Your task to perform on an android device: turn off smart reply in the gmail app Image 0: 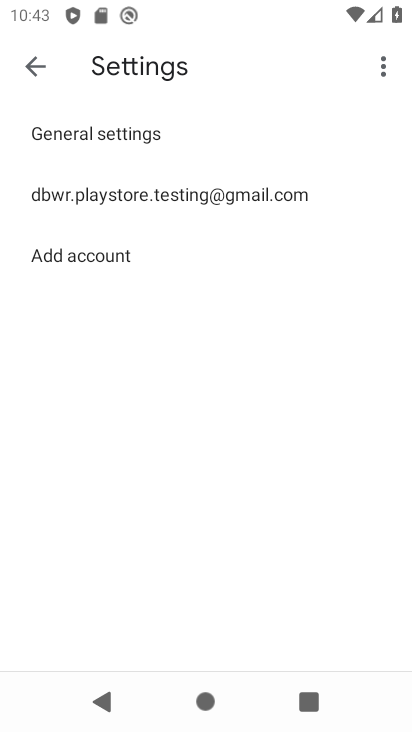
Step 0: press home button
Your task to perform on an android device: turn off smart reply in the gmail app Image 1: 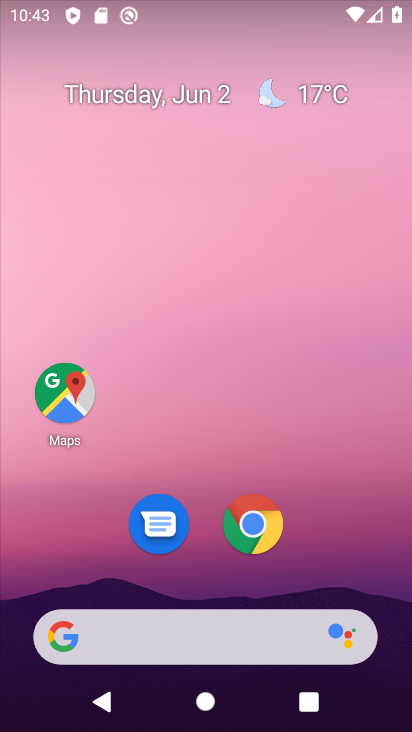
Step 1: drag from (314, 552) to (314, 39)
Your task to perform on an android device: turn off smart reply in the gmail app Image 2: 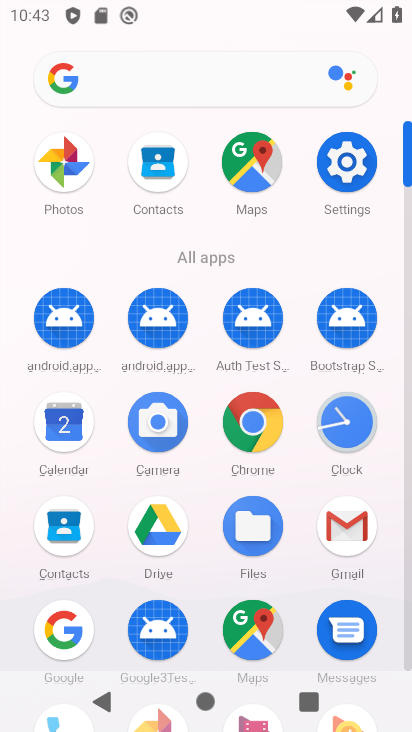
Step 2: click (357, 520)
Your task to perform on an android device: turn off smart reply in the gmail app Image 3: 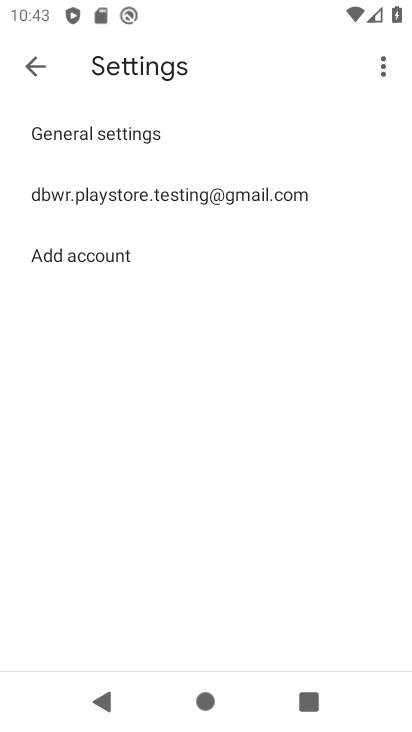
Step 3: click (193, 192)
Your task to perform on an android device: turn off smart reply in the gmail app Image 4: 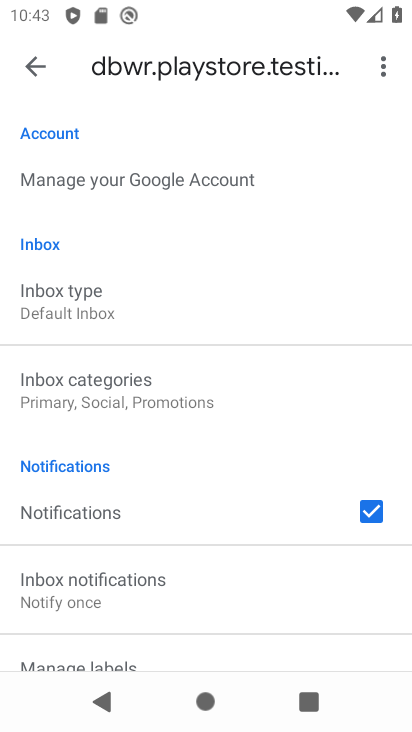
Step 4: drag from (223, 568) to (206, 66)
Your task to perform on an android device: turn off smart reply in the gmail app Image 5: 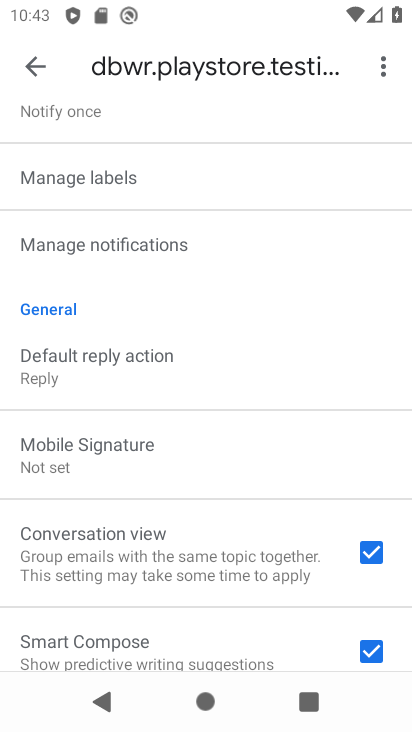
Step 5: drag from (227, 534) to (248, 203)
Your task to perform on an android device: turn off smart reply in the gmail app Image 6: 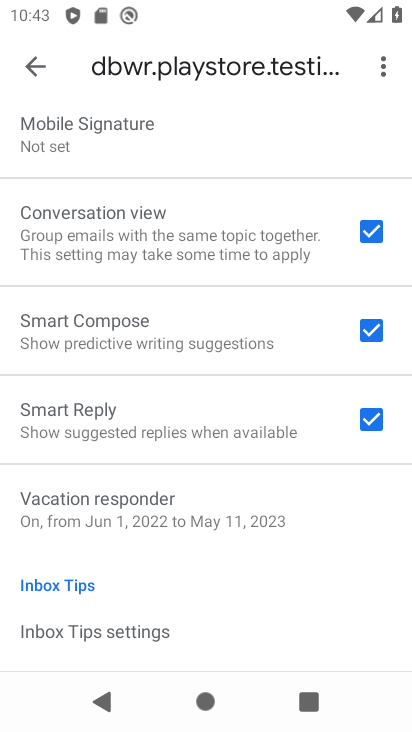
Step 6: click (366, 417)
Your task to perform on an android device: turn off smart reply in the gmail app Image 7: 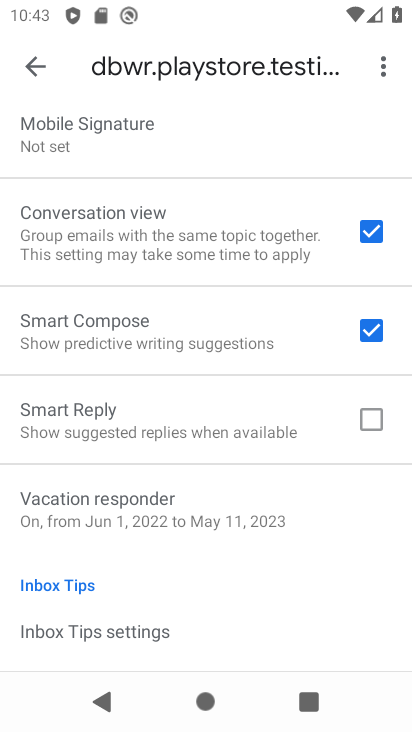
Step 7: task complete